Your task to perform on an android device: move a message to another label in the gmail app Image 0: 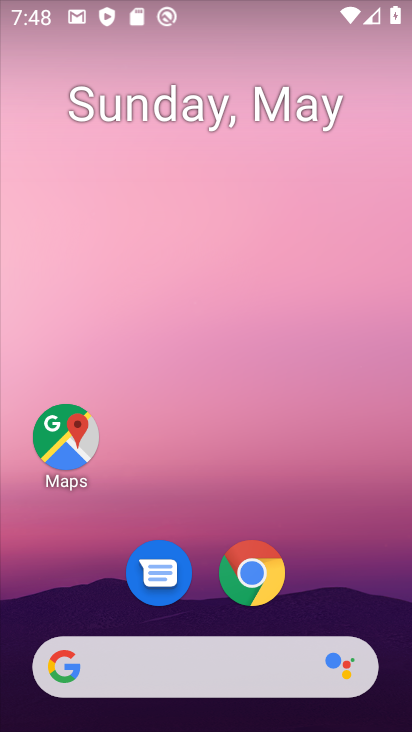
Step 0: drag from (239, 503) to (283, 28)
Your task to perform on an android device: move a message to another label in the gmail app Image 1: 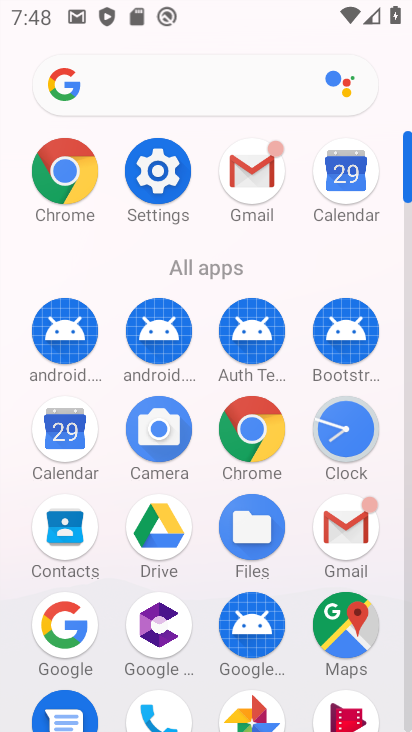
Step 1: click (255, 174)
Your task to perform on an android device: move a message to another label in the gmail app Image 2: 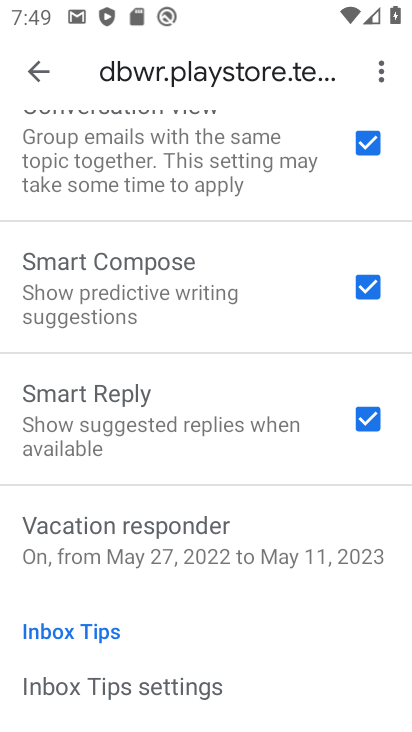
Step 2: click (37, 67)
Your task to perform on an android device: move a message to another label in the gmail app Image 3: 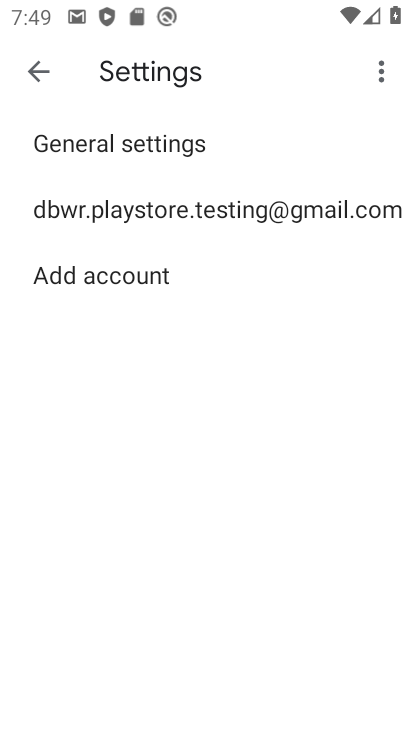
Step 3: click (39, 65)
Your task to perform on an android device: move a message to another label in the gmail app Image 4: 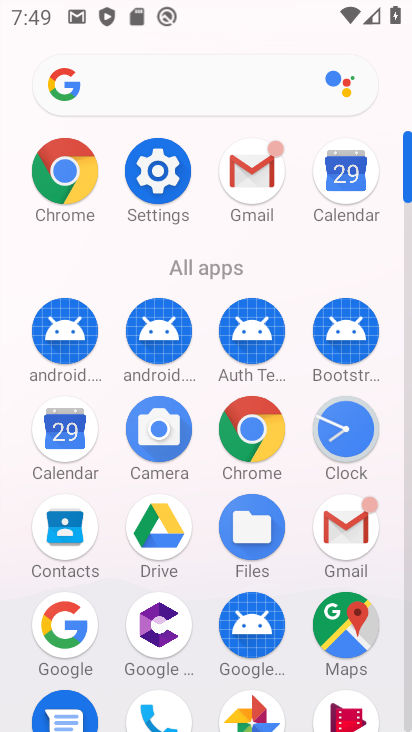
Step 4: click (249, 180)
Your task to perform on an android device: move a message to another label in the gmail app Image 5: 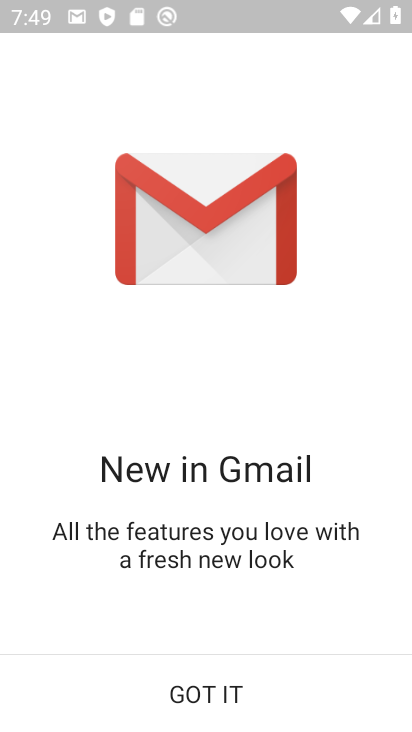
Step 5: click (218, 676)
Your task to perform on an android device: move a message to another label in the gmail app Image 6: 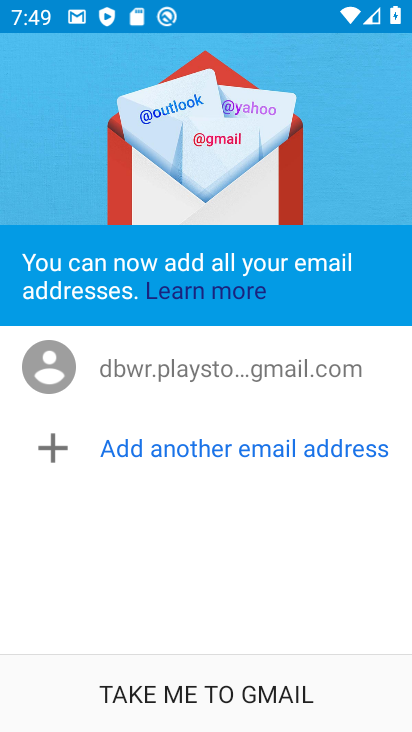
Step 6: click (229, 698)
Your task to perform on an android device: move a message to another label in the gmail app Image 7: 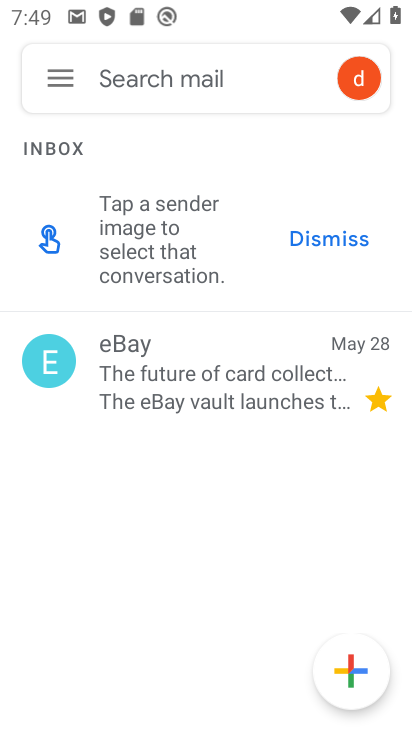
Step 7: click (220, 366)
Your task to perform on an android device: move a message to another label in the gmail app Image 8: 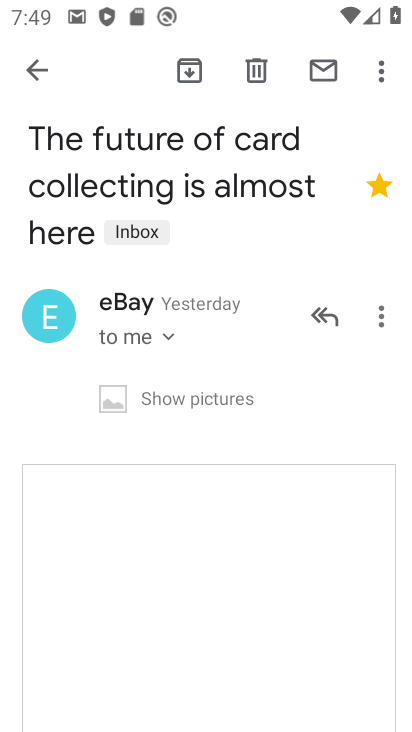
Step 8: click (382, 73)
Your task to perform on an android device: move a message to another label in the gmail app Image 9: 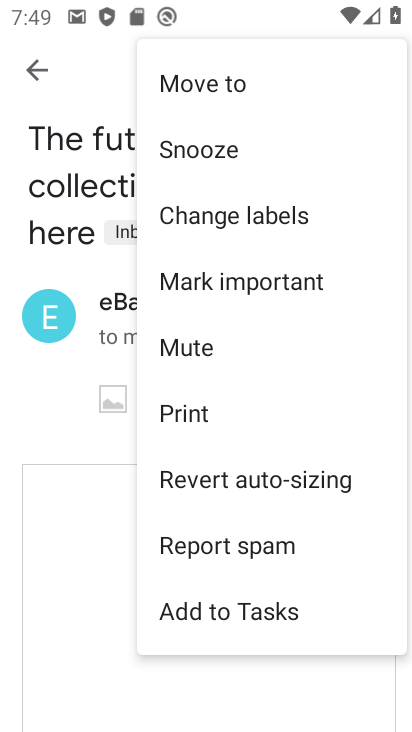
Step 9: click (289, 212)
Your task to perform on an android device: move a message to another label in the gmail app Image 10: 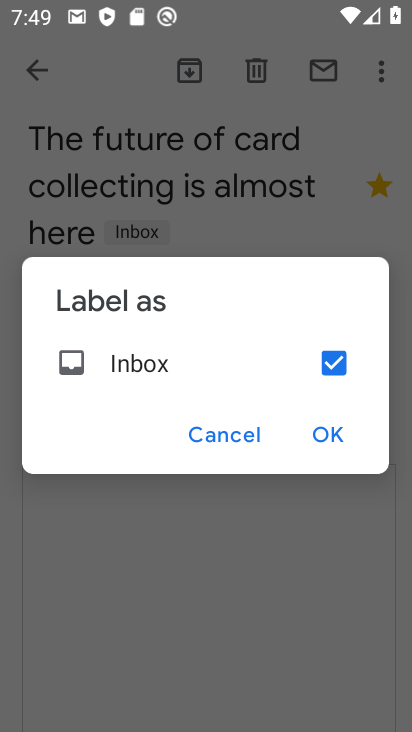
Step 10: click (338, 363)
Your task to perform on an android device: move a message to another label in the gmail app Image 11: 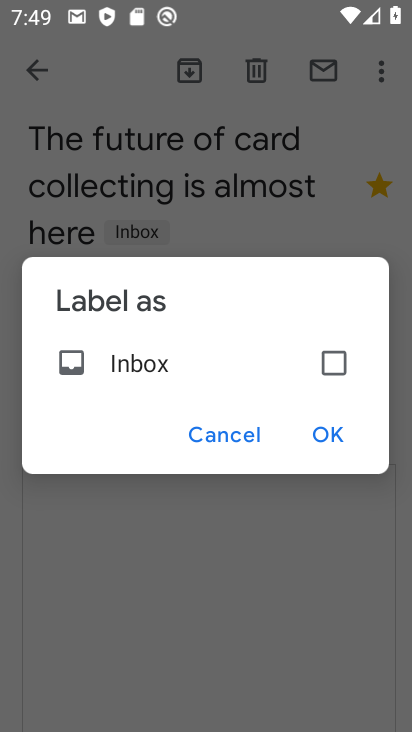
Step 11: click (330, 424)
Your task to perform on an android device: move a message to another label in the gmail app Image 12: 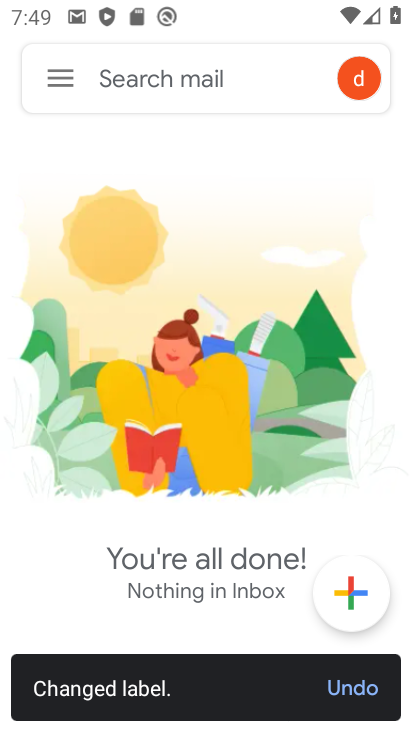
Step 12: task complete